Your task to perform on an android device: check out phone information Image 0: 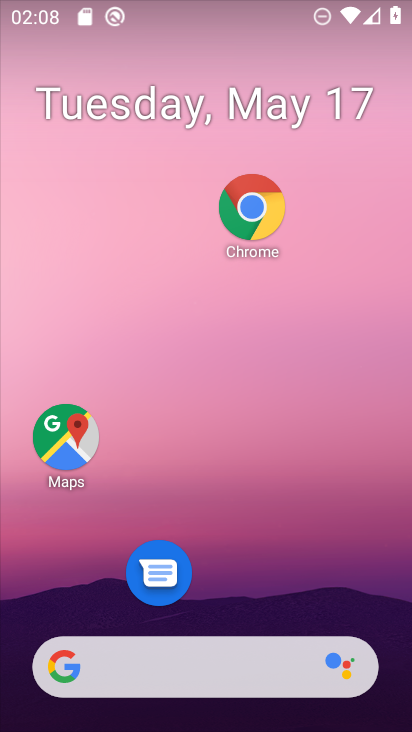
Step 0: drag from (191, 680) to (280, 41)
Your task to perform on an android device: check out phone information Image 1: 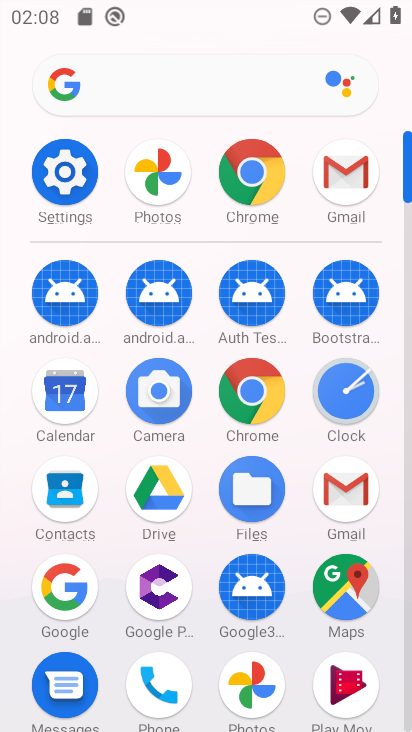
Step 1: drag from (313, 631) to (262, 67)
Your task to perform on an android device: check out phone information Image 2: 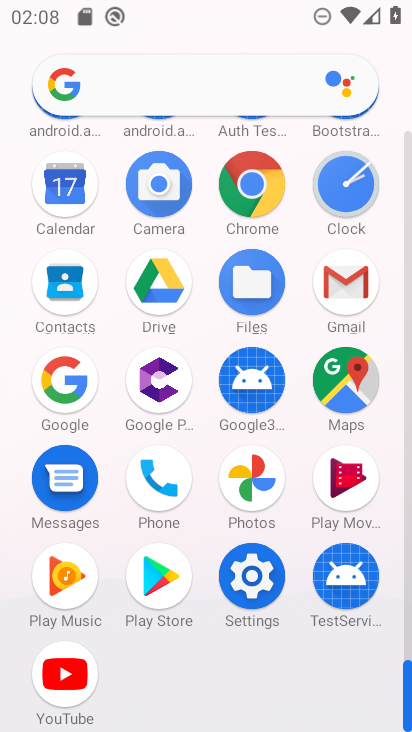
Step 2: click (245, 568)
Your task to perform on an android device: check out phone information Image 3: 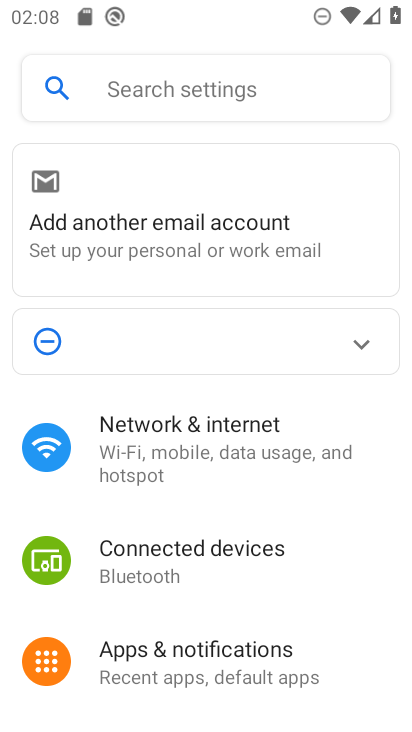
Step 3: drag from (238, 698) to (169, 296)
Your task to perform on an android device: check out phone information Image 4: 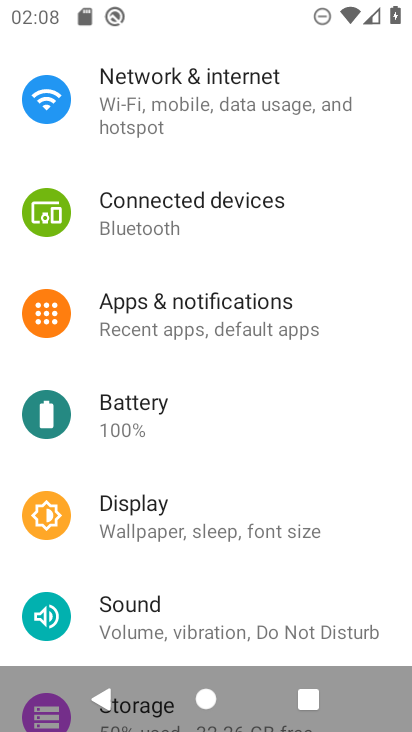
Step 4: drag from (248, 716) to (199, 282)
Your task to perform on an android device: check out phone information Image 5: 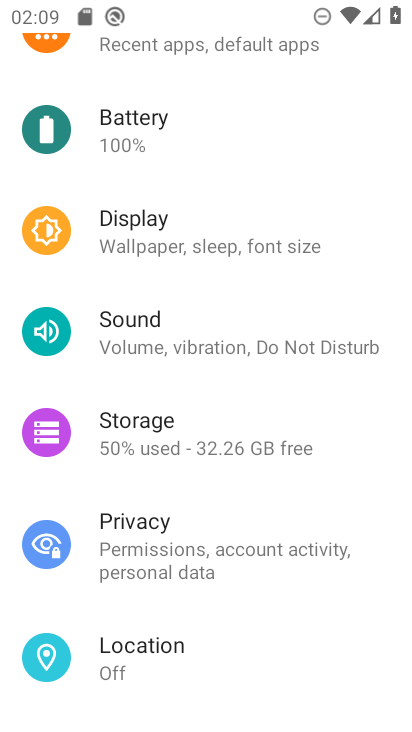
Step 5: drag from (281, 600) to (245, 55)
Your task to perform on an android device: check out phone information Image 6: 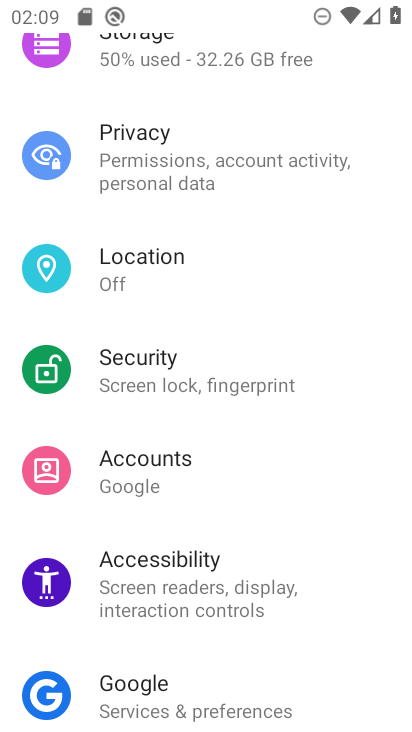
Step 6: drag from (300, 650) to (262, 69)
Your task to perform on an android device: check out phone information Image 7: 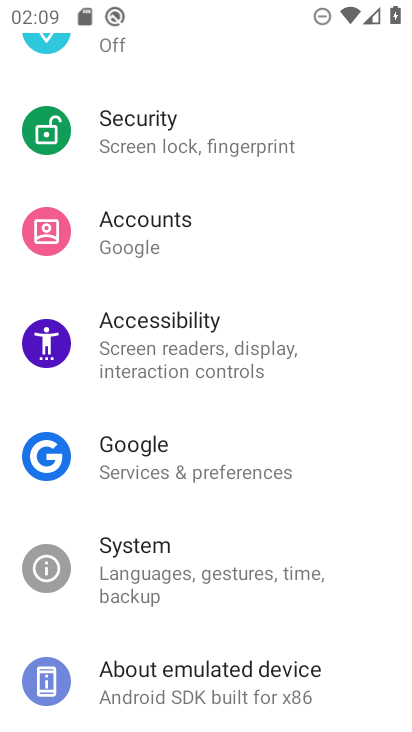
Step 7: click (284, 691)
Your task to perform on an android device: check out phone information Image 8: 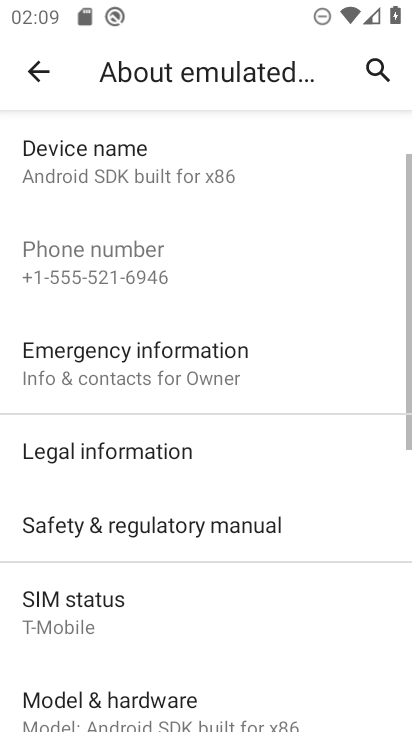
Step 8: task complete